Your task to perform on an android device: open device folders in google photos Image 0: 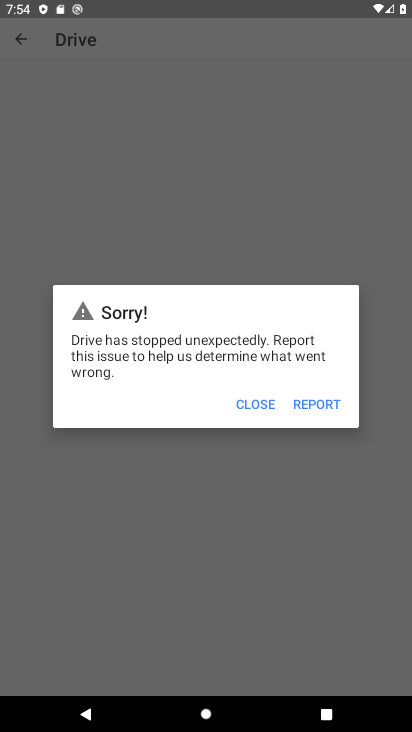
Step 0: press home button
Your task to perform on an android device: open device folders in google photos Image 1: 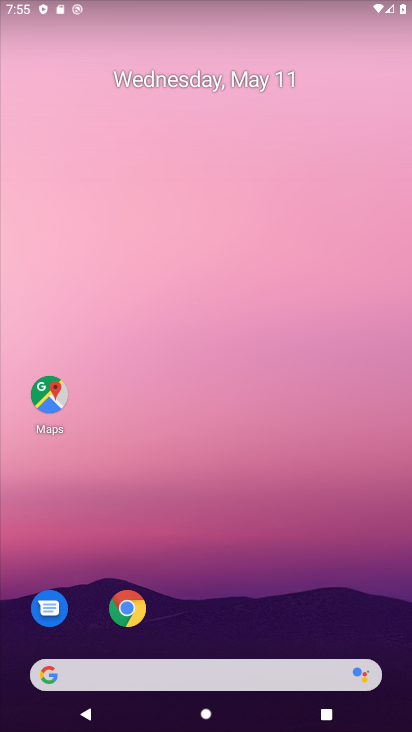
Step 1: drag from (265, 609) to (202, 18)
Your task to perform on an android device: open device folders in google photos Image 2: 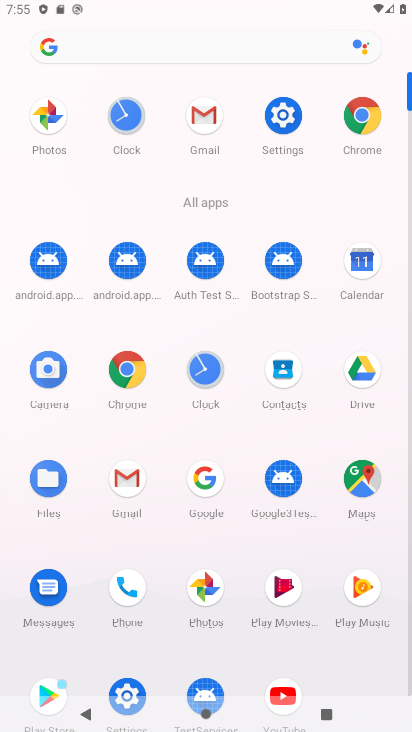
Step 2: click (59, 139)
Your task to perform on an android device: open device folders in google photos Image 3: 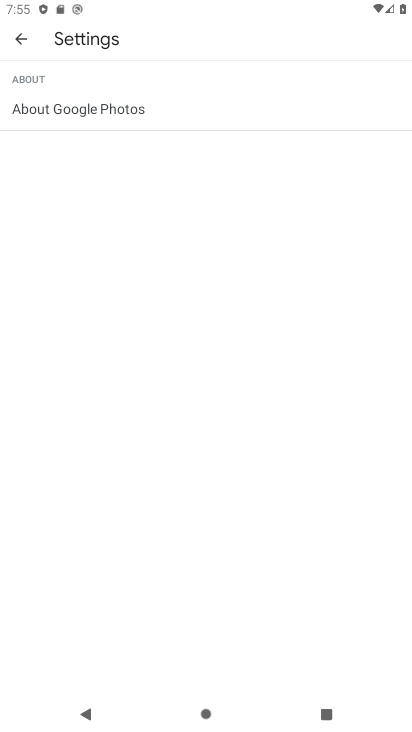
Step 3: click (16, 39)
Your task to perform on an android device: open device folders in google photos Image 4: 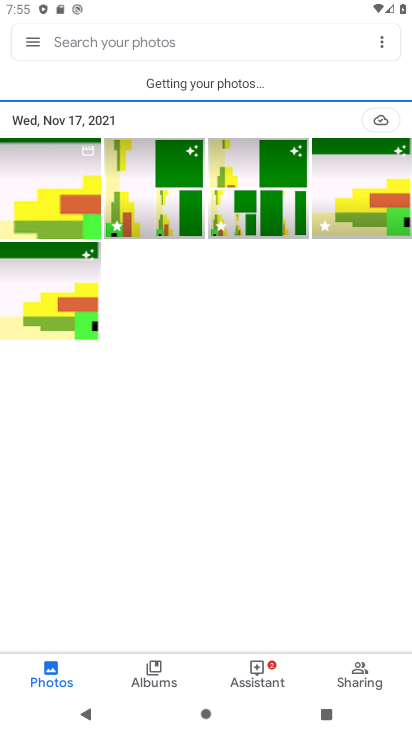
Step 4: click (37, 41)
Your task to perform on an android device: open device folders in google photos Image 5: 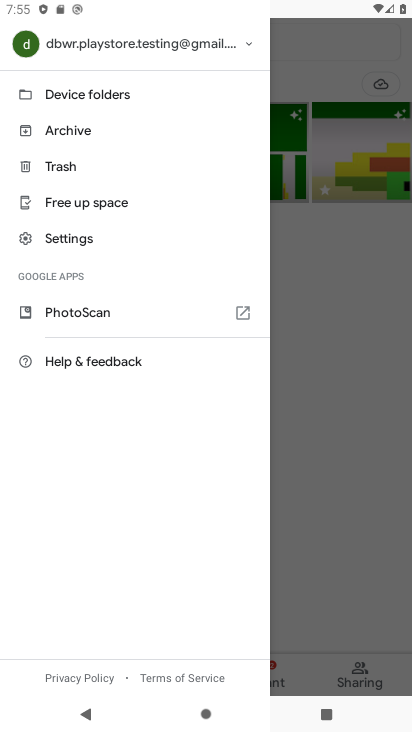
Step 5: click (149, 102)
Your task to perform on an android device: open device folders in google photos Image 6: 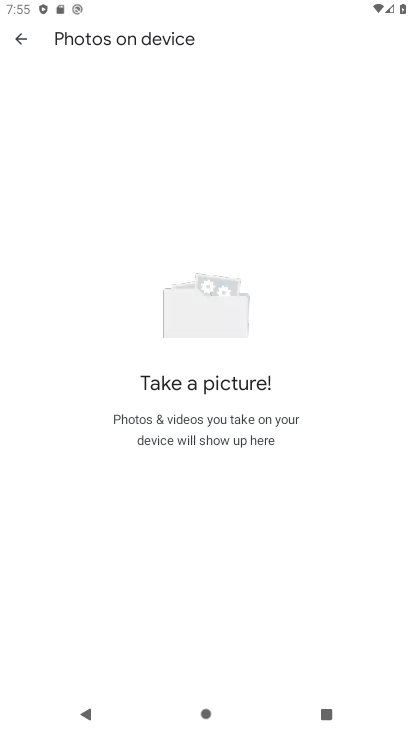
Step 6: task complete